Your task to perform on an android device: When is my next appointment? Image 0: 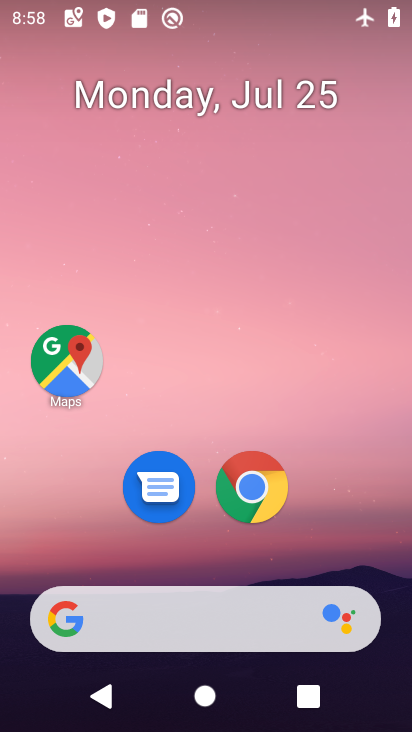
Step 0: drag from (206, 493) to (301, 4)
Your task to perform on an android device: When is my next appointment? Image 1: 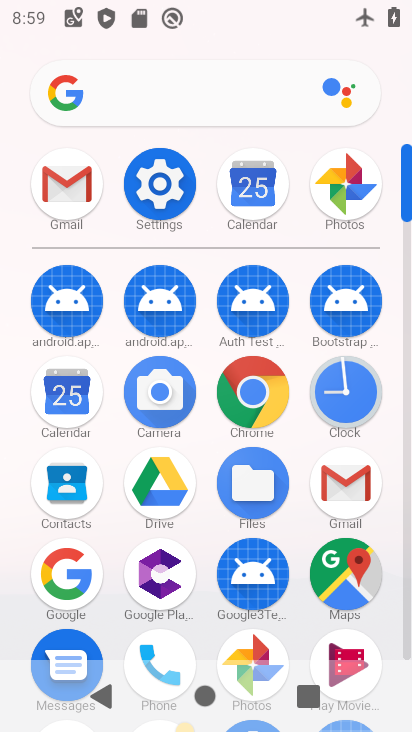
Step 1: click (73, 394)
Your task to perform on an android device: When is my next appointment? Image 2: 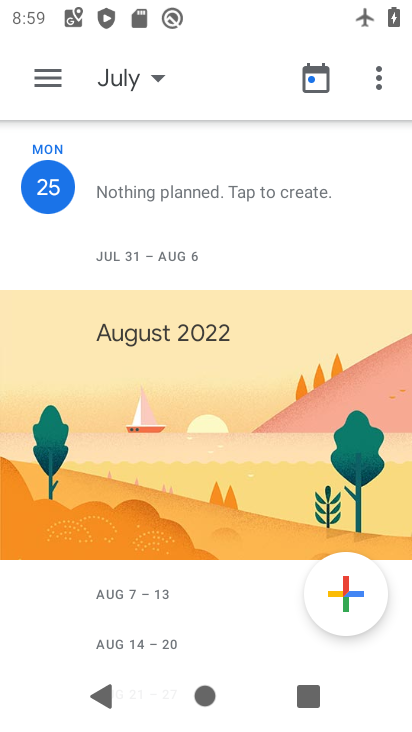
Step 2: task complete